Your task to perform on an android device: set the timer Image 0: 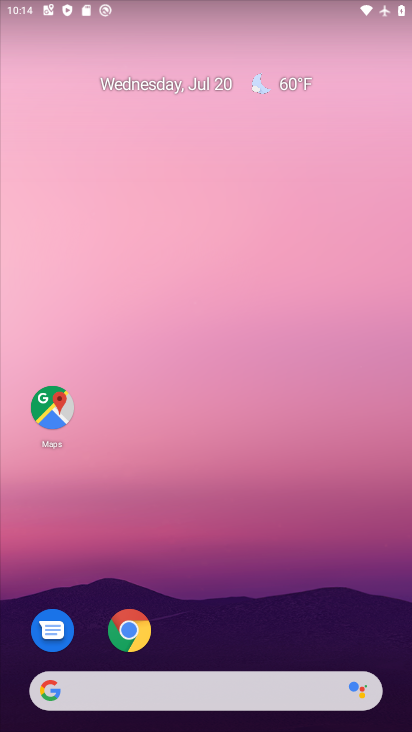
Step 0: drag from (186, 665) to (206, 251)
Your task to perform on an android device: set the timer Image 1: 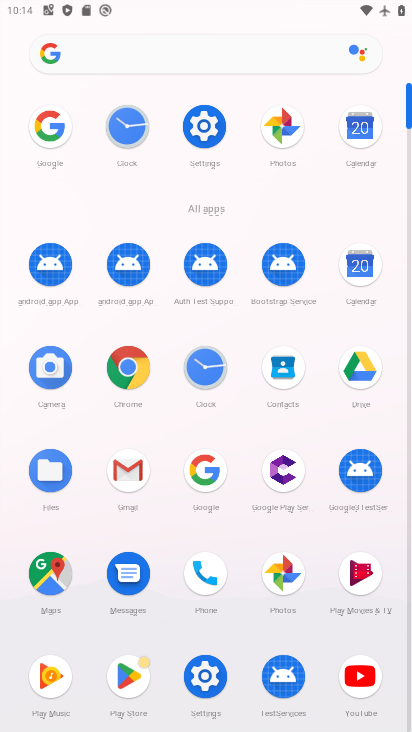
Step 1: click (214, 365)
Your task to perform on an android device: set the timer Image 2: 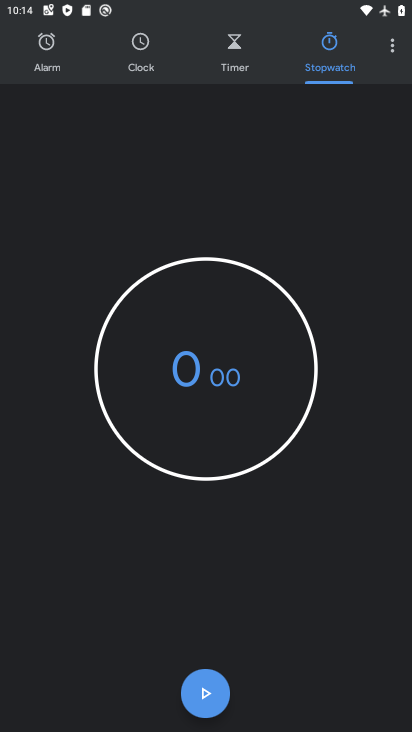
Step 2: click (229, 27)
Your task to perform on an android device: set the timer Image 3: 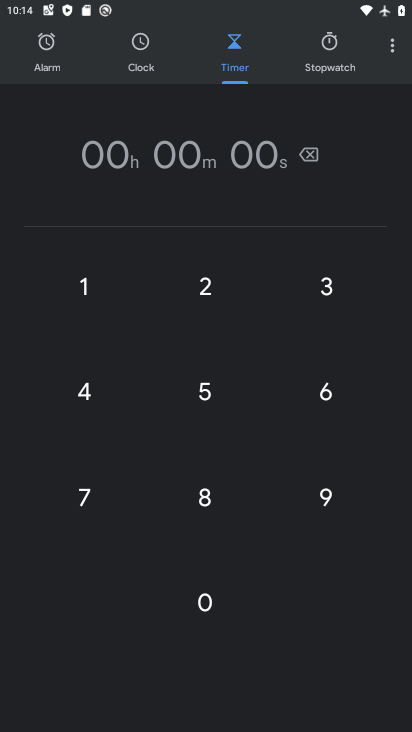
Step 3: click (84, 292)
Your task to perform on an android device: set the timer Image 4: 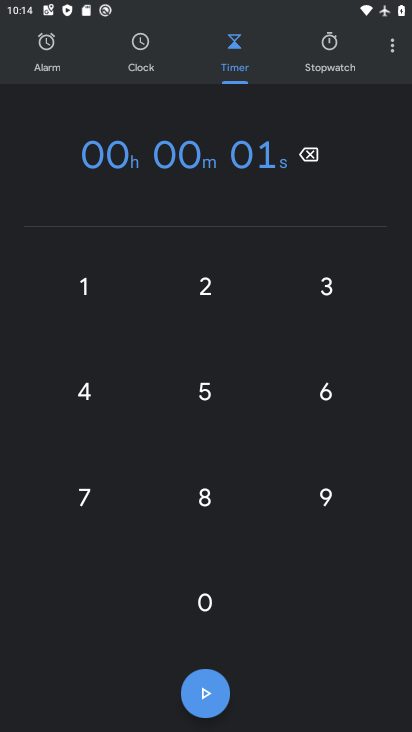
Step 4: click (212, 610)
Your task to perform on an android device: set the timer Image 5: 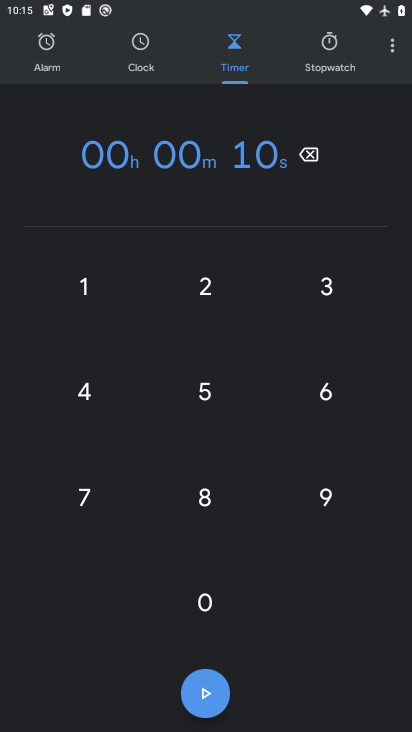
Step 5: click (212, 610)
Your task to perform on an android device: set the timer Image 6: 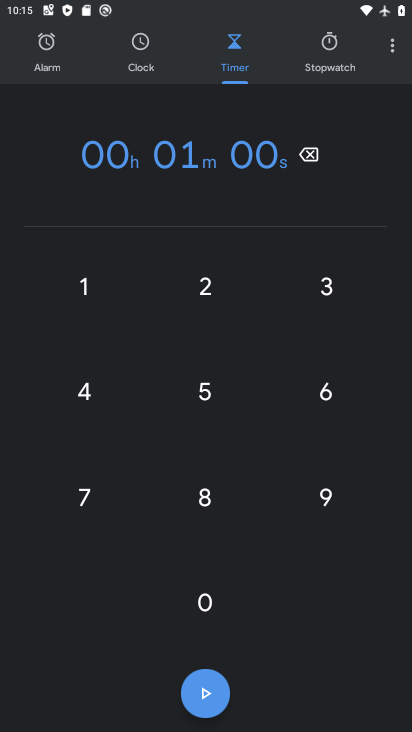
Step 6: click (212, 610)
Your task to perform on an android device: set the timer Image 7: 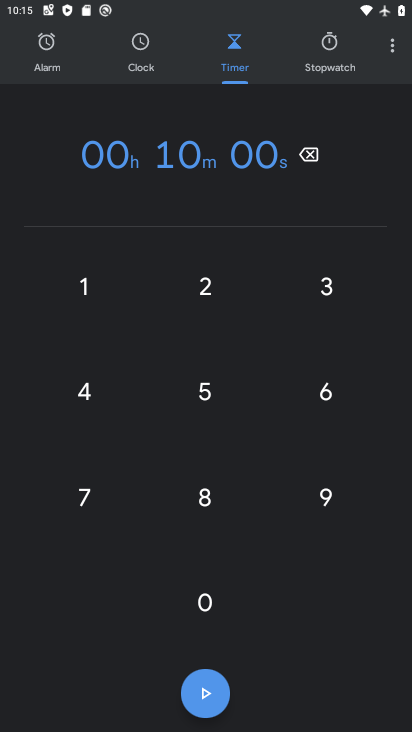
Step 7: click (207, 689)
Your task to perform on an android device: set the timer Image 8: 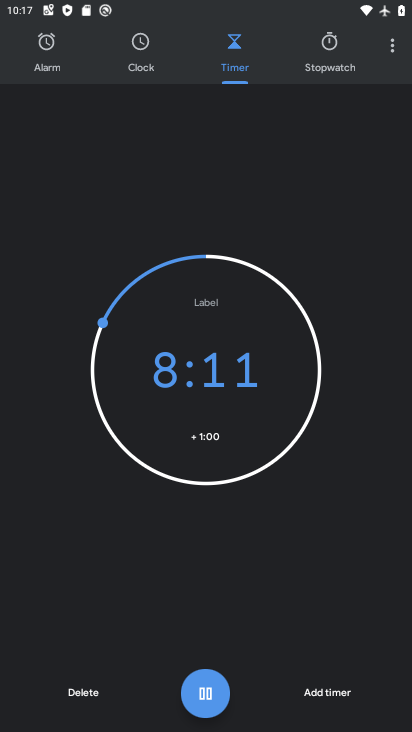
Step 8: task complete